Your task to perform on an android device: open chrome and create a bookmark for the current page Image 0: 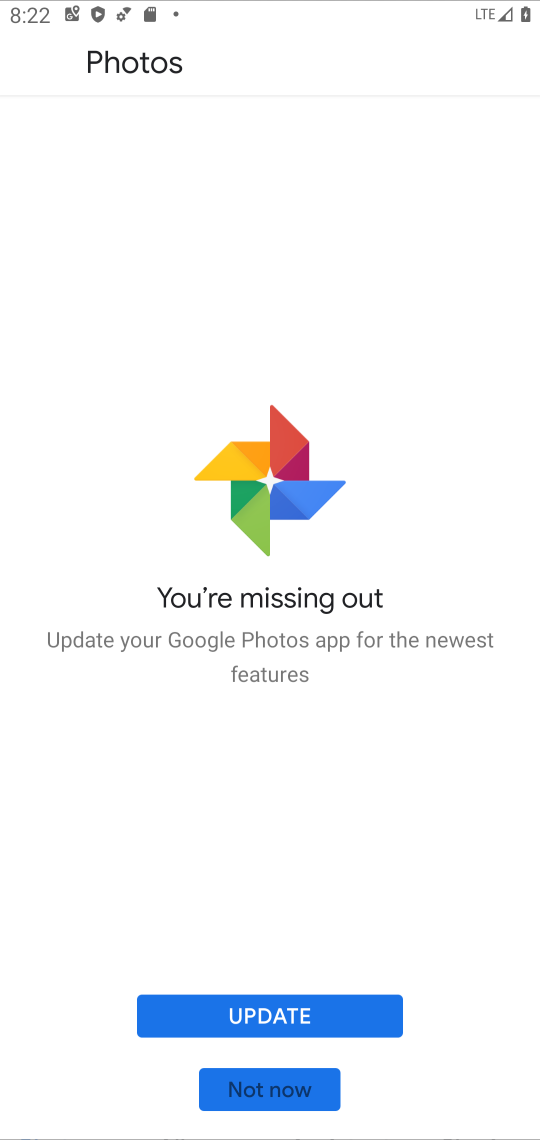
Step 0: press home button
Your task to perform on an android device: open chrome and create a bookmark for the current page Image 1: 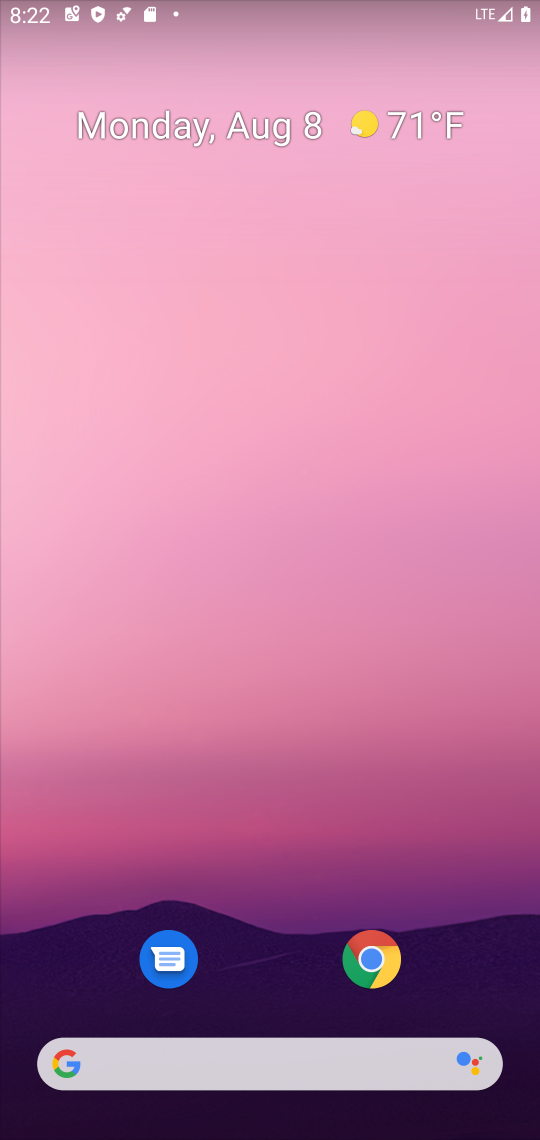
Step 1: drag from (492, 980) to (271, 71)
Your task to perform on an android device: open chrome and create a bookmark for the current page Image 2: 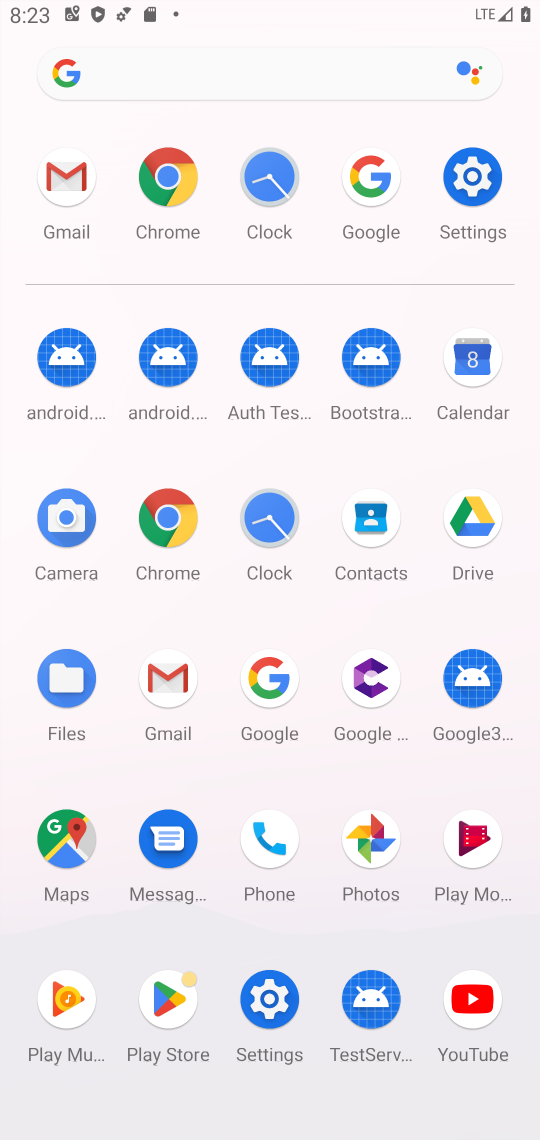
Step 2: click (155, 177)
Your task to perform on an android device: open chrome and create a bookmark for the current page Image 3: 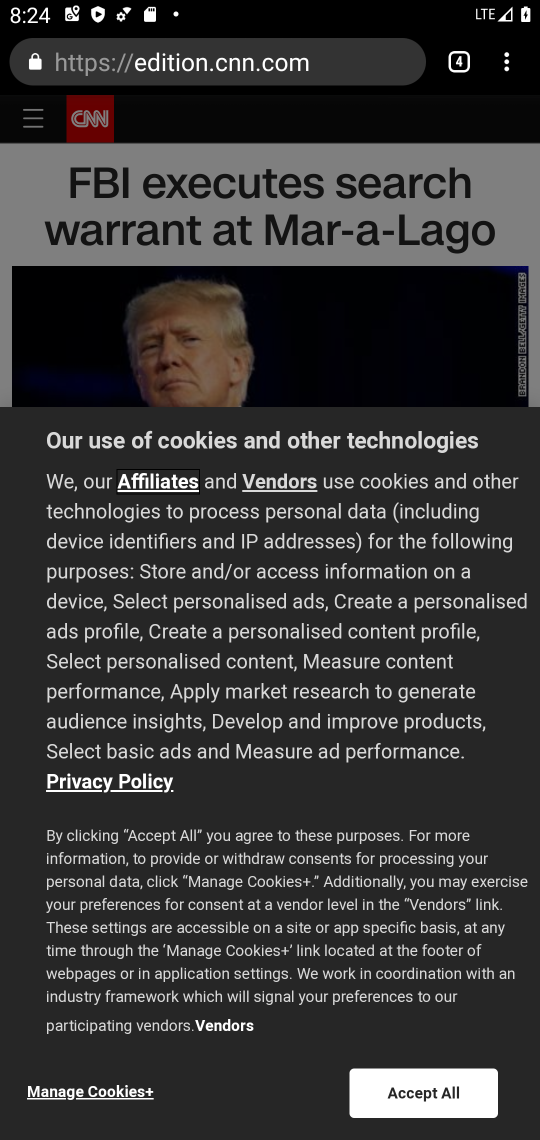
Step 3: click (510, 58)
Your task to perform on an android device: open chrome and create a bookmark for the current page Image 4: 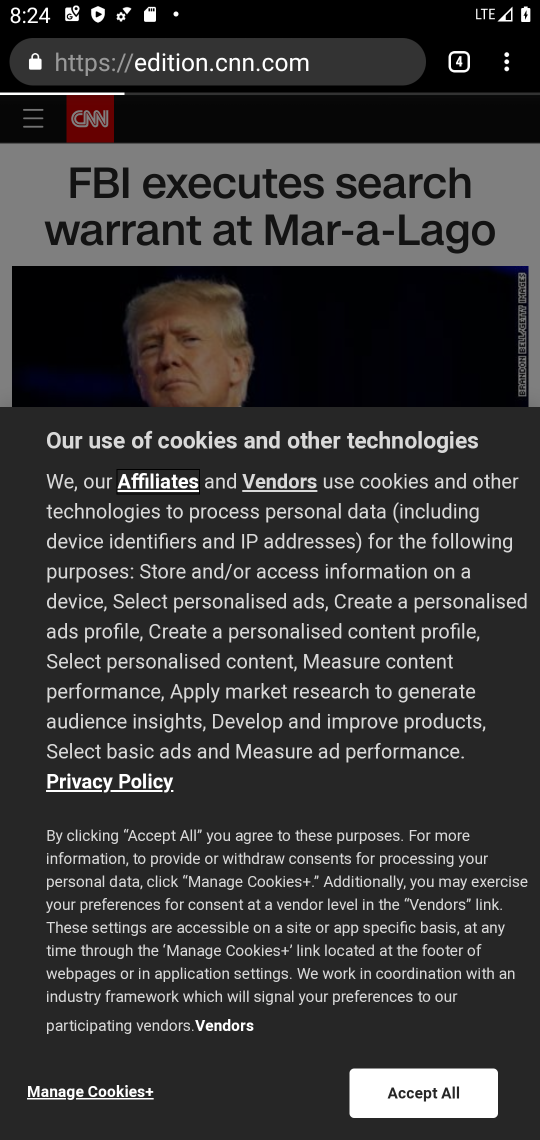
Step 4: click (510, 58)
Your task to perform on an android device: open chrome and create a bookmark for the current page Image 5: 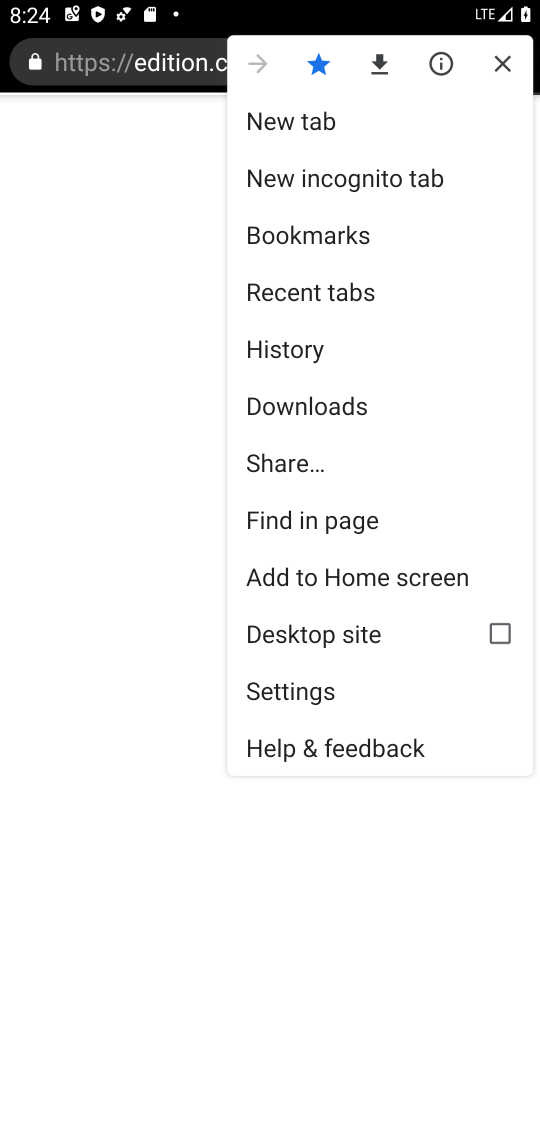
Step 5: task complete